Your task to perform on an android device: set default search engine in the chrome app Image 0: 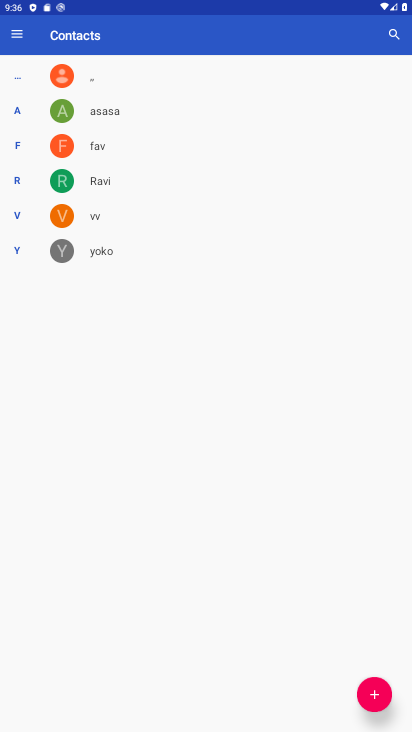
Step 0: press home button
Your task to perform on an android device: set default search engine in the chrome app Image 1: 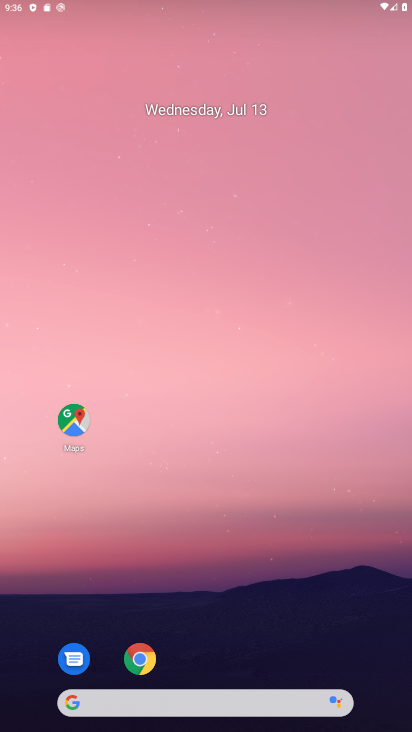
Step 1: drag from (307, 638) to (347, 137)
Your task to perform on an android device: set default search engine in the chrome app Image 2: 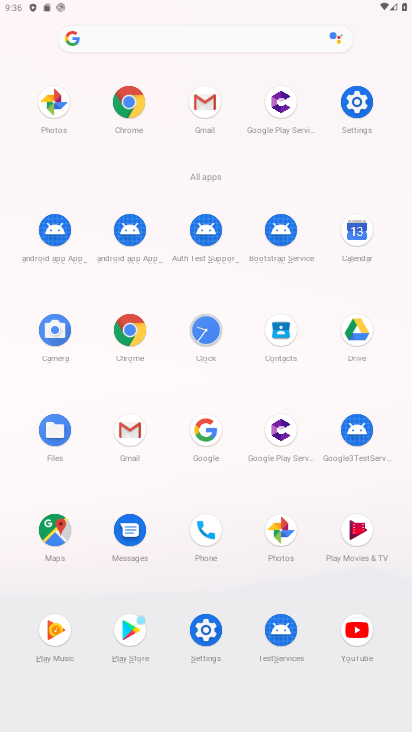
Step 2: click (133, 329)
Your task to perform on an android device: set default search engine in the chrome app Image 3: 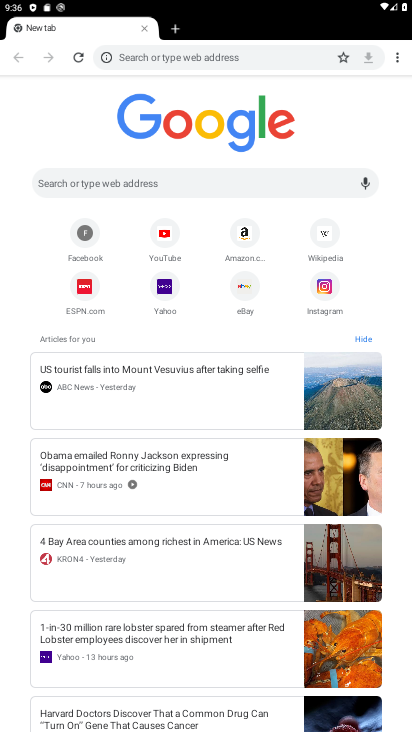
Step 3: drag from (396, 54) to (303, 269)
Your task to perform on an android device: set default search engine in the chrome app Image 4: 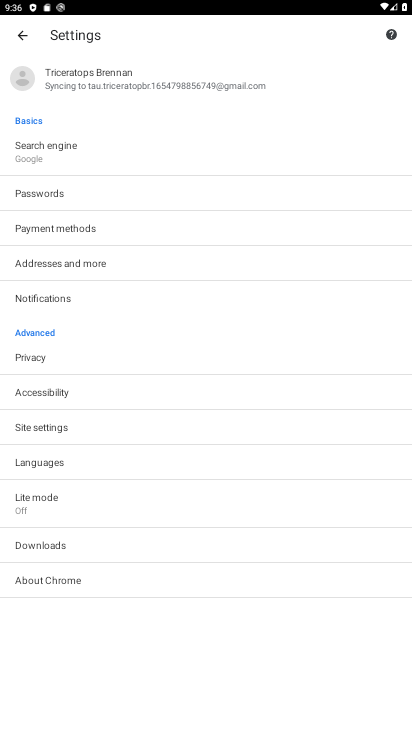
Step 4: click (76, 146)
Your task to perform on an android device: set default search engine in the chrome app Image 5: 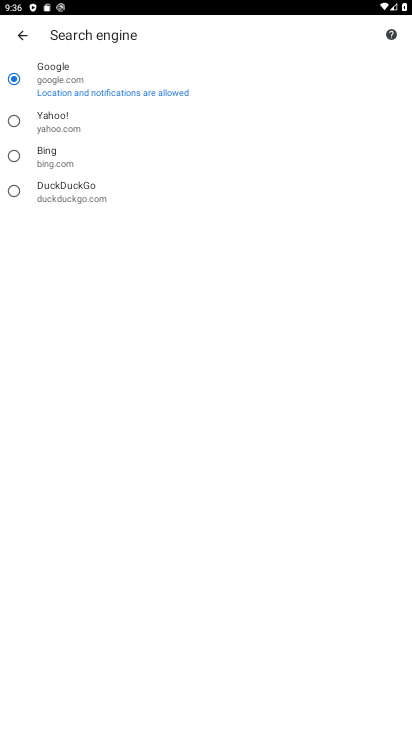
Step 5: task complete